Your task to perform on an android device: check android version Image 0: 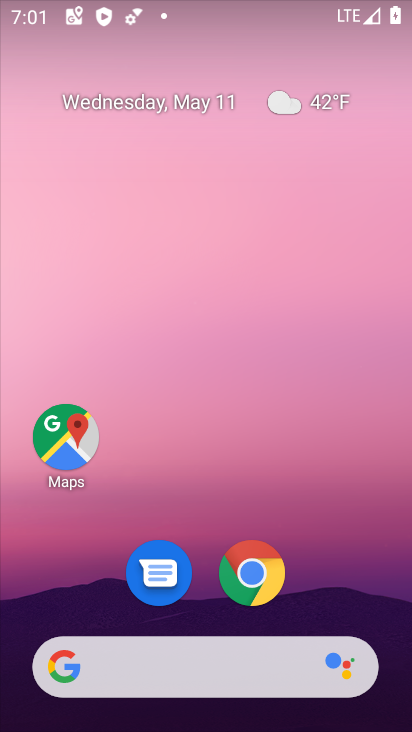
Step 0: drag from (309, 614) to (322, 256)
Your task to perform on an android device: check android version Image 1: 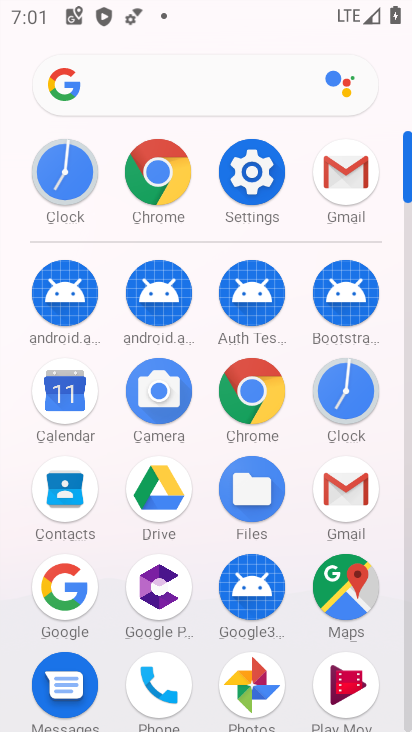
Step 1: click (256, 206)
Your task to perform on an android device: check android version Image 2: 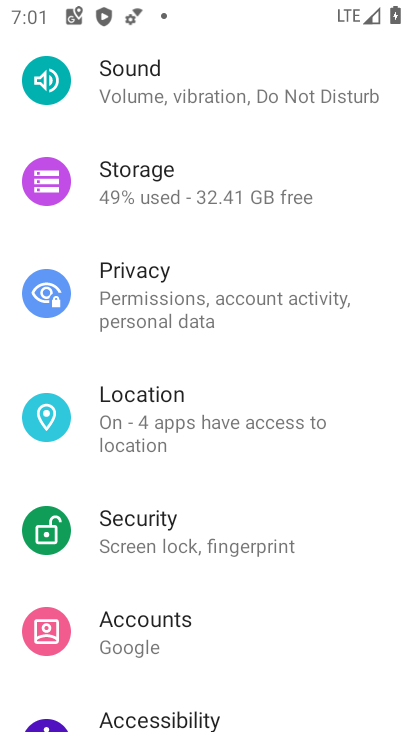
Step 2: click (270, 262)
Your task to perform on an android device: check android version Image 3: 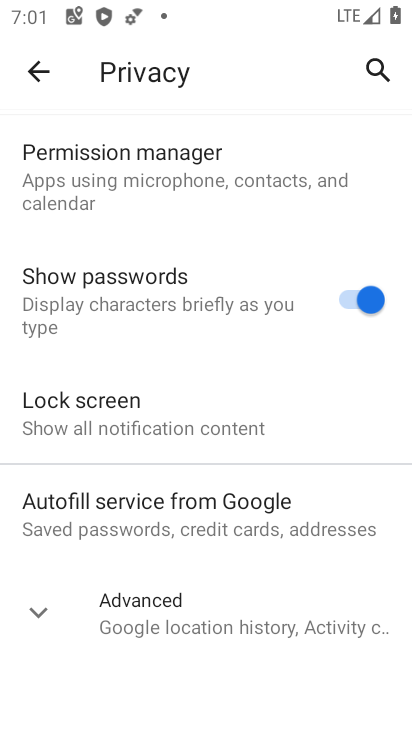
Step 3: press back button
Your task to perform on an android device: check android version Image 4: 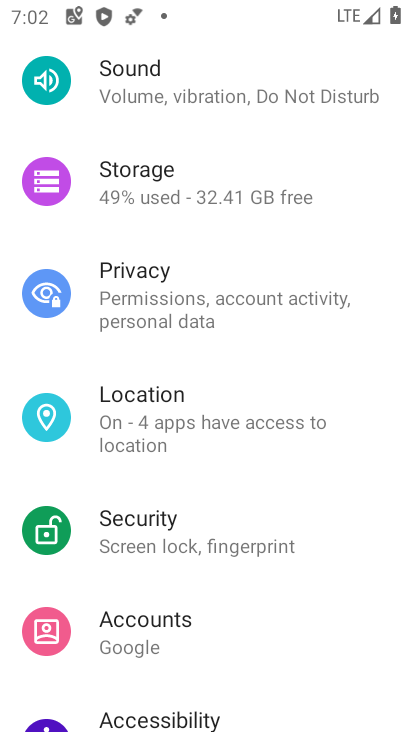
Step 4: drag from (210, 676) to (244, 394)
Your task to perform on an android device: check android version Image 5: 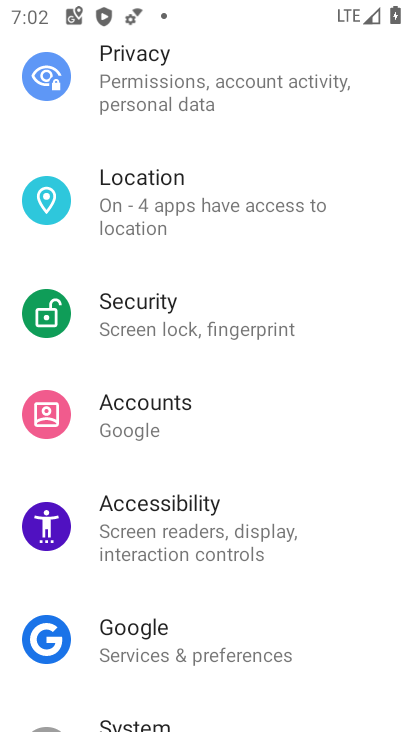
Step 5: drag from (185, 678) to (202, 365)
Your task to perform on an android device: check android version Image 6: 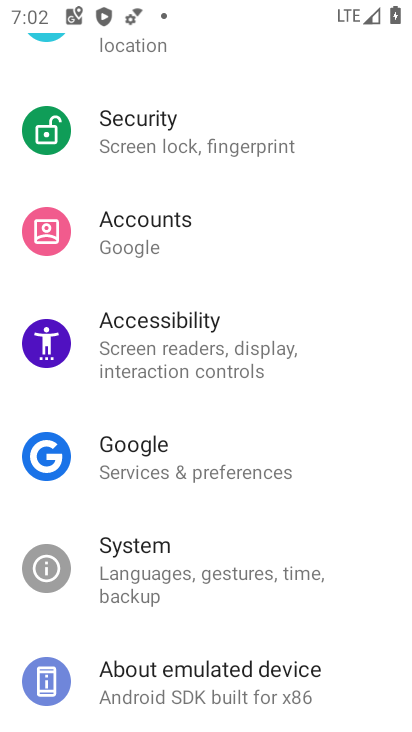
Step 6: drag from (187, 673) to (220, 365)
Your task to perform on an android device: check android version Image 7: 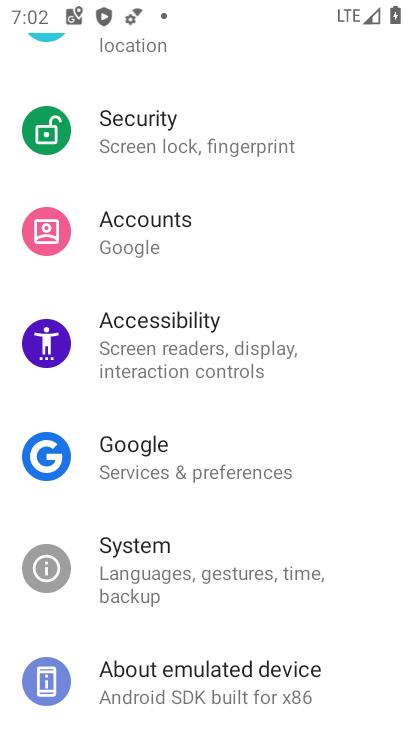
Step 7: click (160, 697)
Your task to perform on an android device: check android version Image 8: 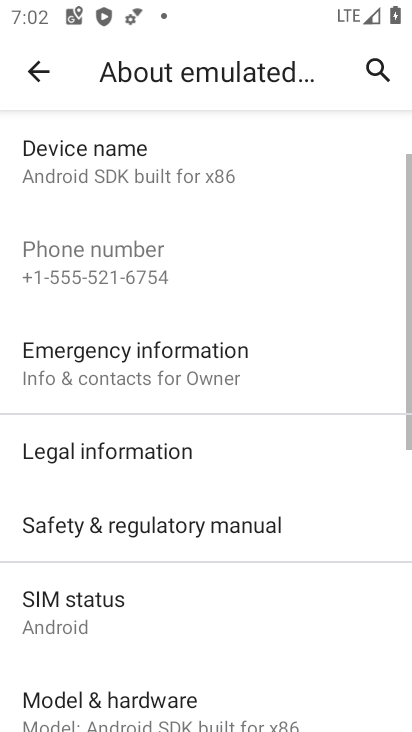
Step 8: task complete